Your task to perform on an android device: see creations saved in the google photos Image 0: 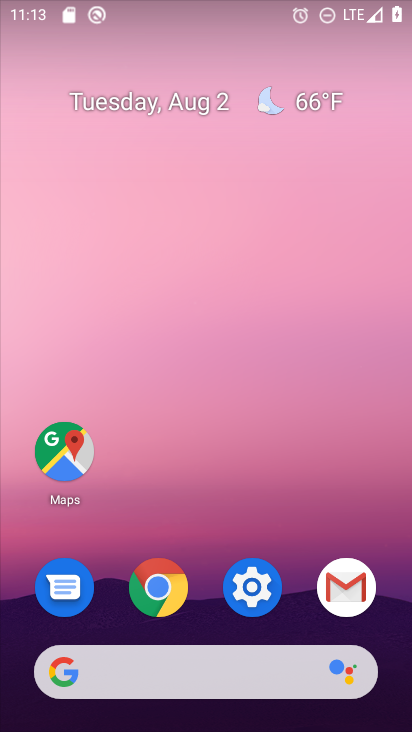
Step 0: drag from (205, 708) to (349, 72)
Your task to perform on an android device: see creations saved in the google photos Image 1: 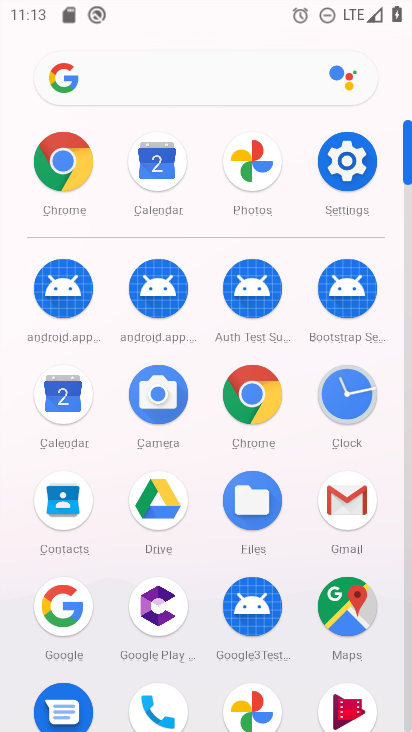
Step 1: click (244, 679)
Your task to perform on an android device: see creations saved in the google photos Image 2: 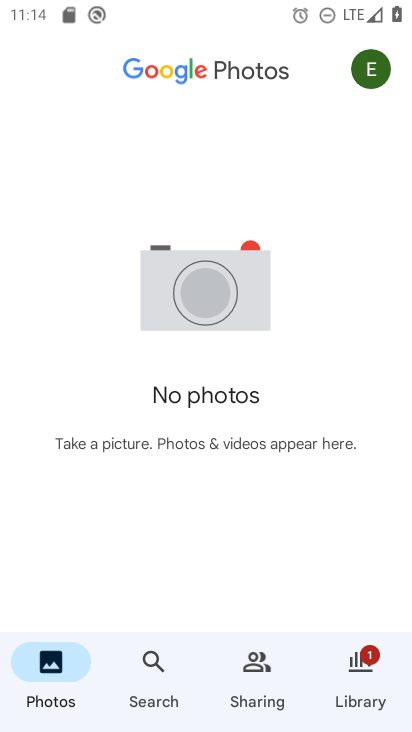
Step 2: task complete